Your task to perform on an android device: Open the calendar and show me this week's events Image 0: 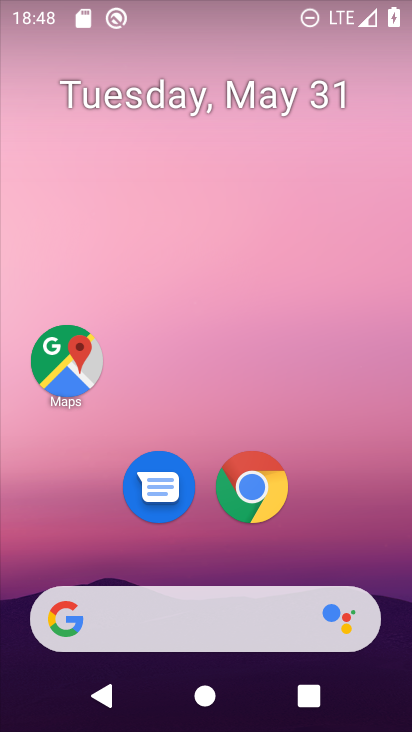
Step 0: drag from (317, 514) to (187, 144)
Your task to perform on an android device: Open the calendar and show me this week's events Image 1: 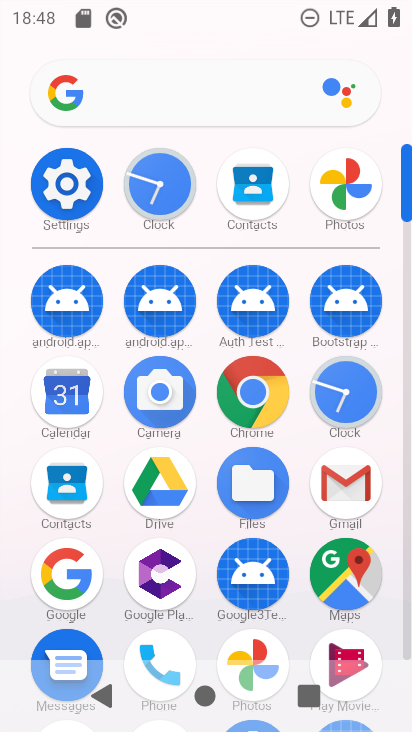
Step 1: click (45, 386)
Your task to perform on an android device: Open the calendar and show me this week's events Image 2: 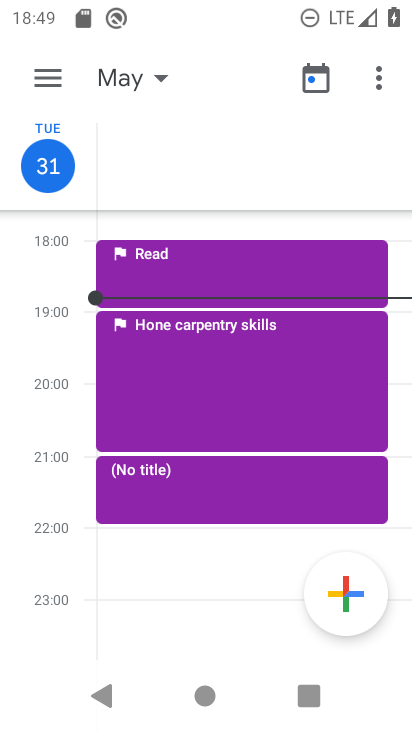
Step 2: click (162, 74)
Your task to perform on an android device: Open the calendar and show me this week's events Image 3: 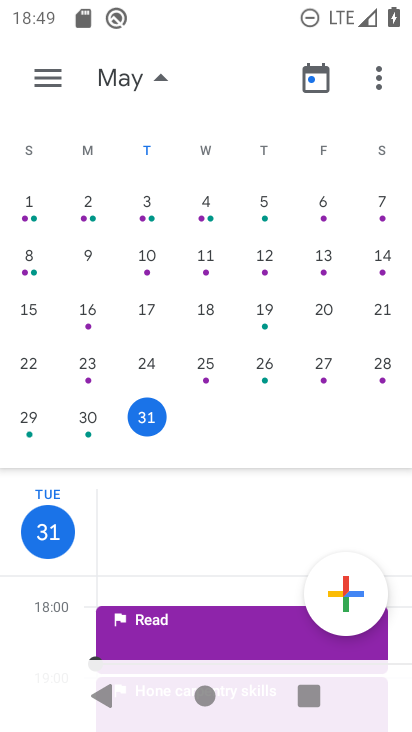
Step 3: click (48, 73)
Your task to perform on an android device: Open the calendar and show me this week's events Image 4: 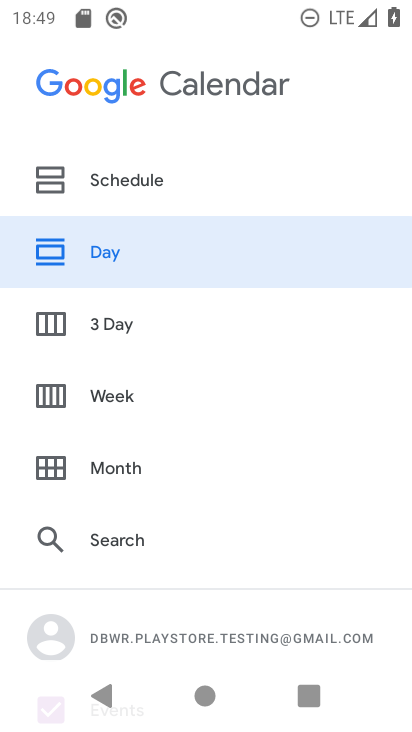
Step 4: click (113, 389)
Your task to perform on an android device: Open the calendar and show me this week's events Image 5: 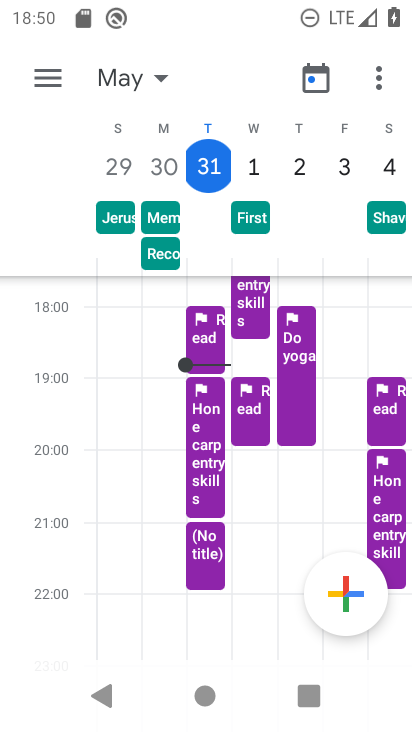
Step 5: task complete